Your task to perform on an android device: turn on wifi Image 0: 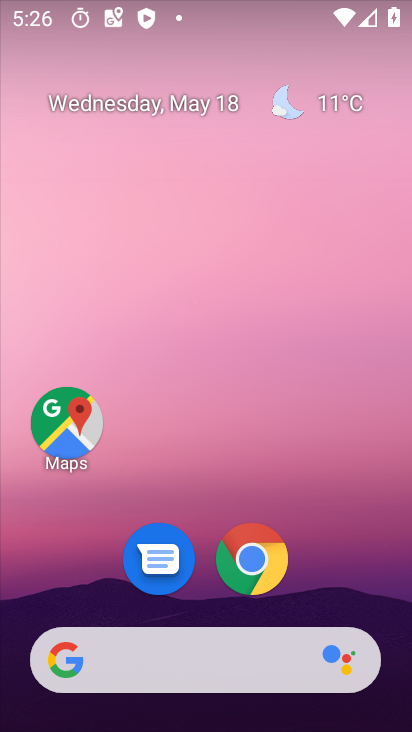
Step 0: drag from (157, 22) to (181, 630)
Your task to perform on an android device: turn on wifi Image 1: 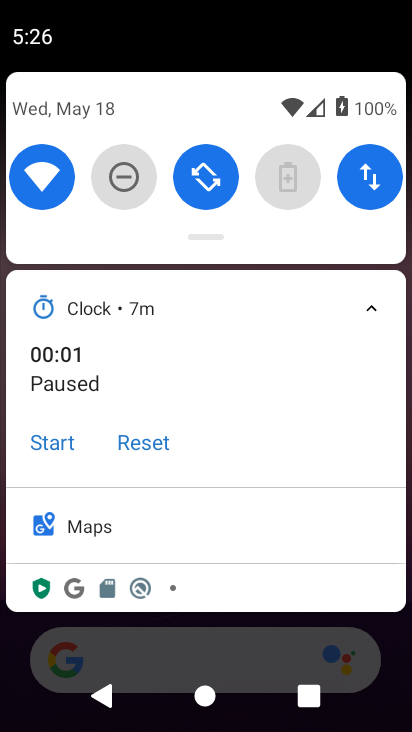
Step 1: task complete